Your task to perform on an android device: toggle airplane mode Image 0: 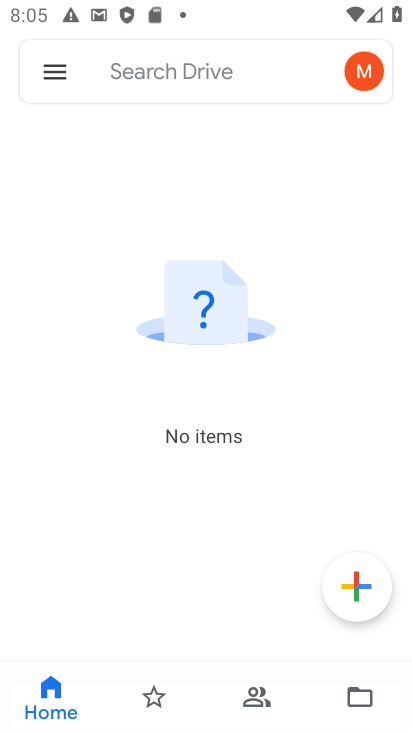
Step 0: press home button
Your task to perform on an android device: toggle airplane mode Image 1: 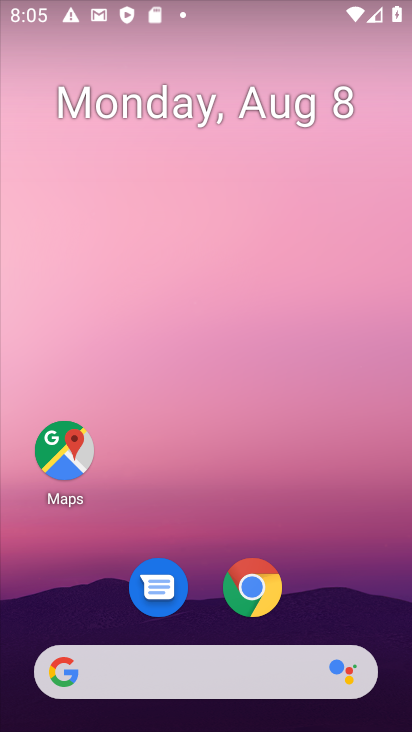
Step 1: drag from (177, 625) to (153, 260)
Your task to perform on an android device: toggle airplane mode Image 2: 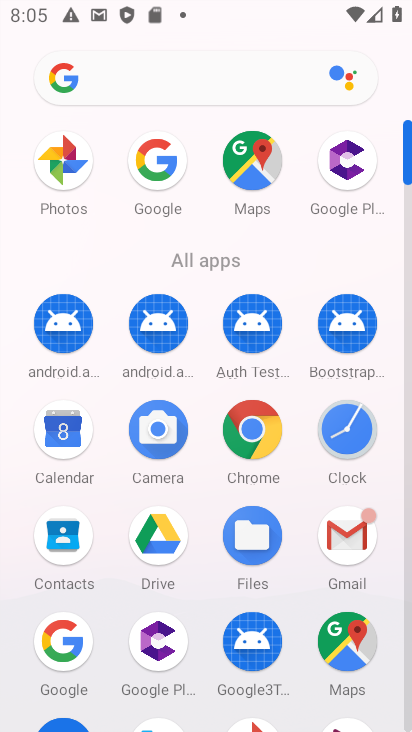
Step 2: drag from (238, 571) to (201, 173)
Your task to perform on an android device: toggle airplane mode Image 3: 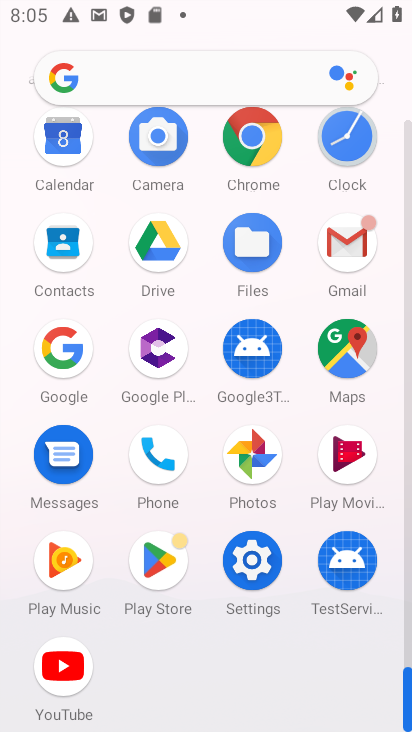
Step 3: click (247, 576)
Your task to perform on an android device: toggle airplane mode Image 4: 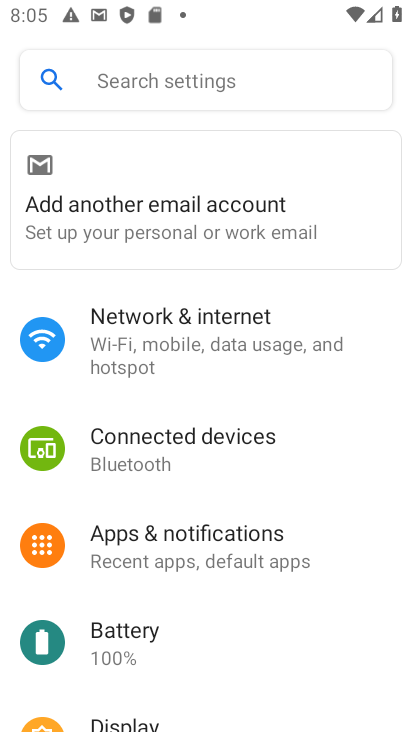
Step 4: click (140, 333)
Your task to perform on an android device: toggle airplane mode Image 5: 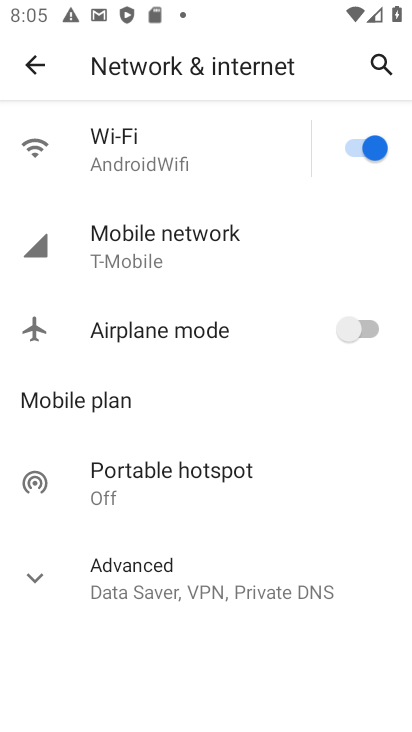
Step 5: click (353, 329)
Your task to perform on an android device: toggle airplane mode Image 6: 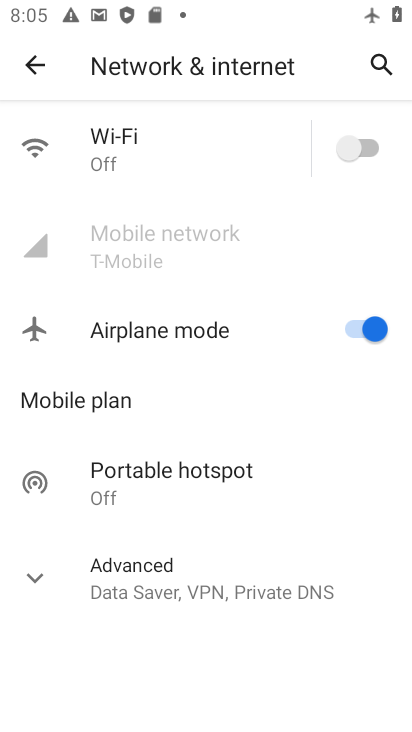
Step 6: task complete